Your task to perform on an android device: Go to Reddit.com Image 0: 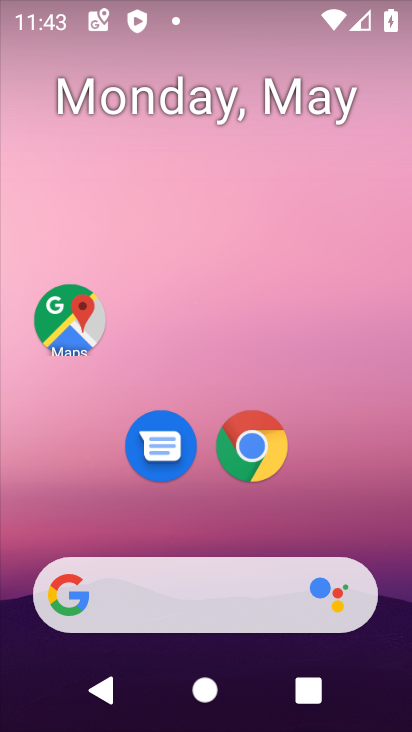
Step 0: click (231, 436)
Your task to perform on an android device: Go to Reddit.com Image 1: 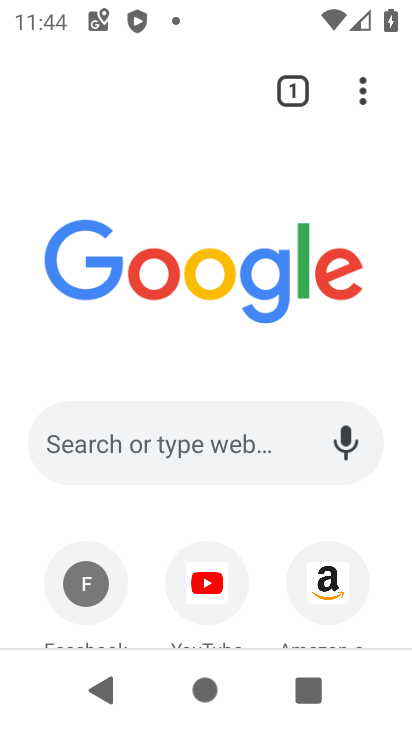
Step 1: click (90, 446)
Your task to perform on an android device: Go to Reddit.com Image 2: 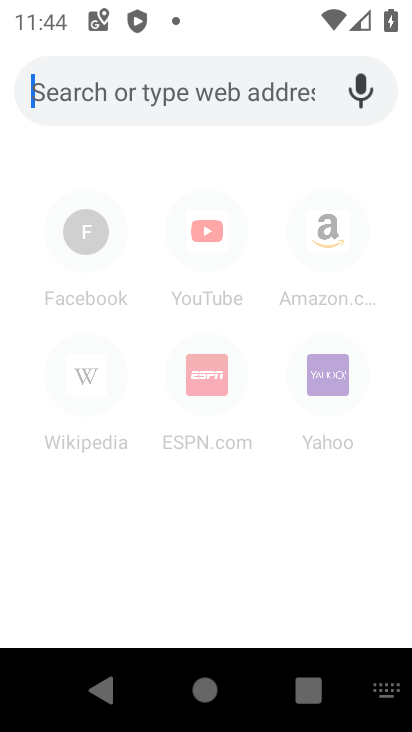
Step 2: type "Reddit.com"
Your task to perform on an android device: Go to Reddit.com Image 3: 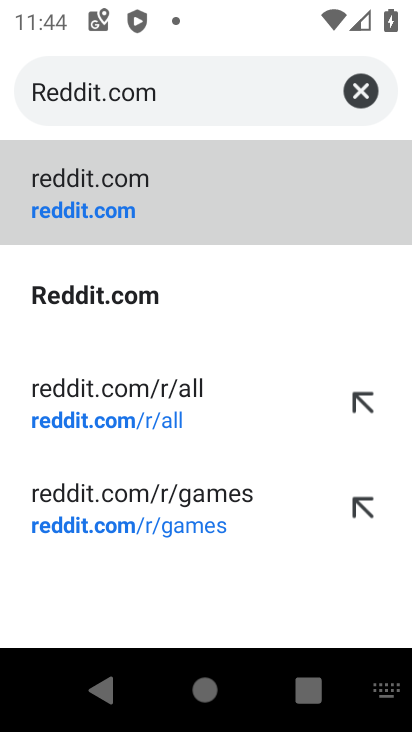
Step 3: click (125, 212)
Your task to perform on an android device: Go to Reddit.com Image 4: 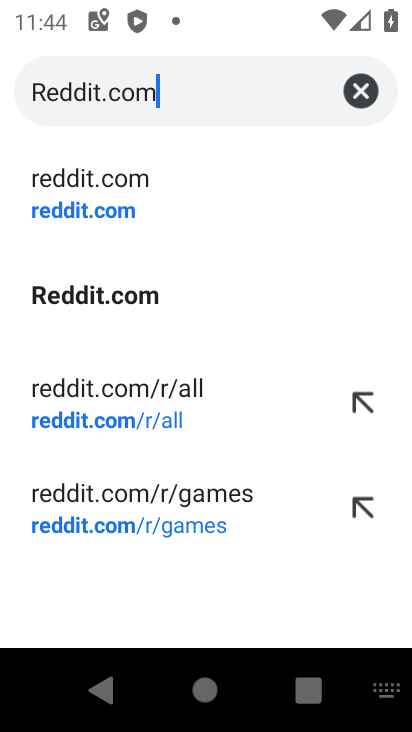
Step 4: click (118, 203)
Your task to perform on an android device: Go to Reddit.com Image 5: 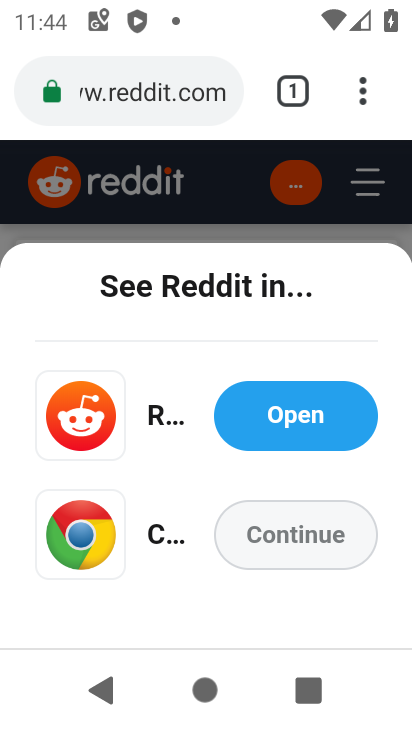
Step 5: click (260, 396)
Your task to perform on an android device: Go to Reddit.com Image 6: 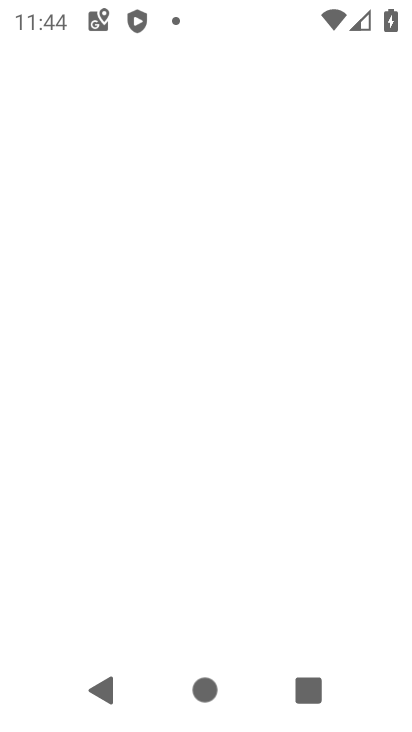
Step 6: task complete